Your task to perform on an android device: choose inbox layout in the gmail app Image 0: 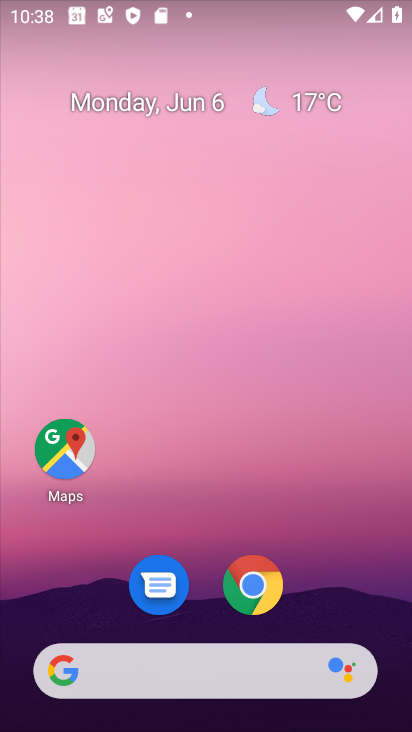
Step 0: drag from (243, 461) to (269, 72)
Your task to perform on an android device: choose inbox layout in the gmail app Image 1: 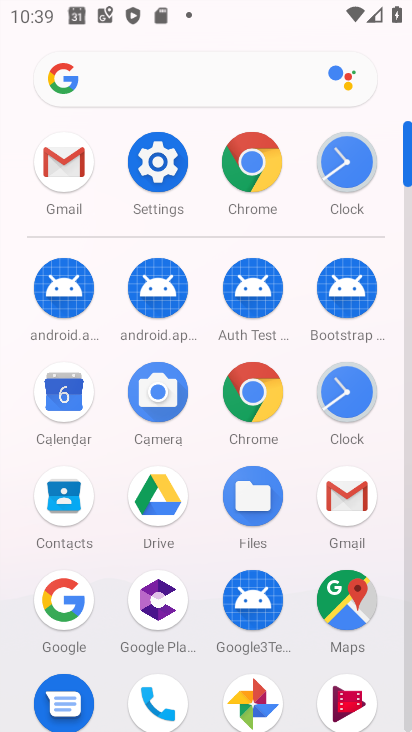
Step 1: click (68, 166)
Your task to perform on an android device: choose inbox layout in the gmail app Image 2: 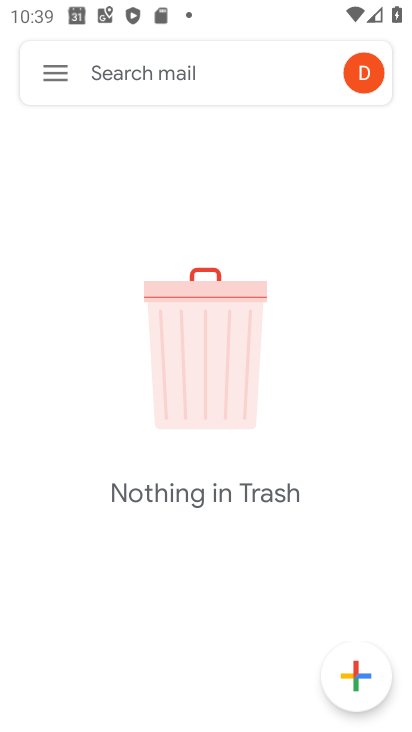
Step 2: click (60, 67)
Your task to perform on an android device: choose inbox layout in the gmail app Image 3: 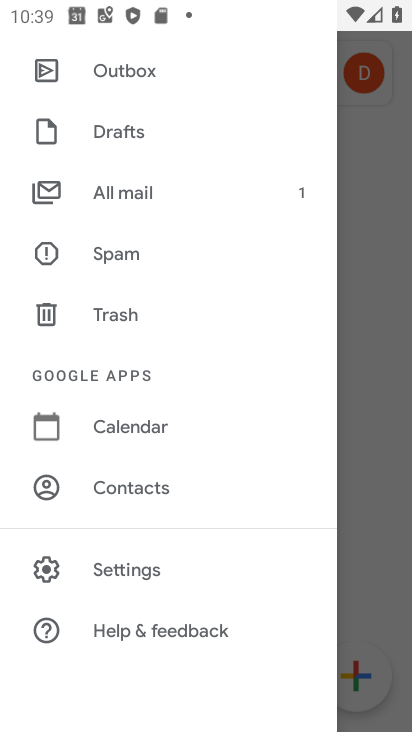
Step 3: click (119, 556)
Your task to perform on an android device: choose inbox layout in the gmail app Image 4: 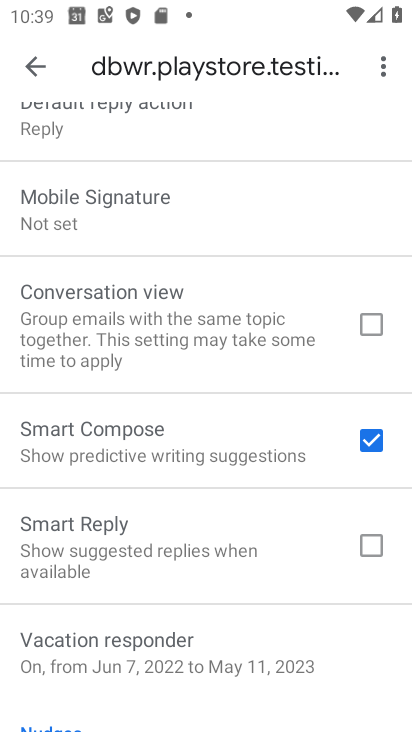
Step 4: drag from (206, 204) to (275, 720)
Your task to perform on an android device: choose inbox layout in the gmail app Image 5: 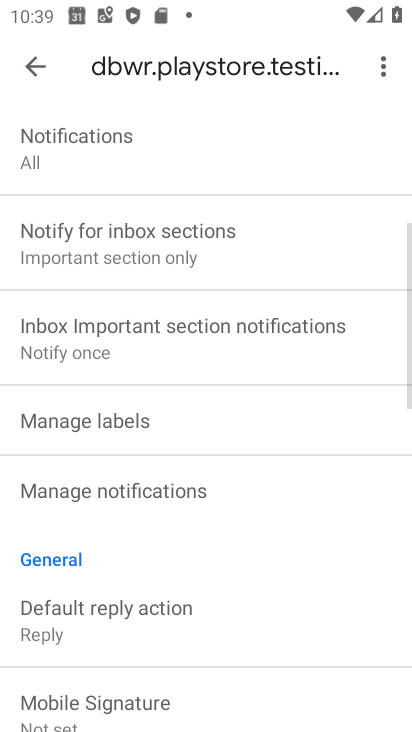
Step 5: drag from (179, 217) to (163, 622)
Your task to perform on an android device: choose inbox layout in the gmail app Image 6: 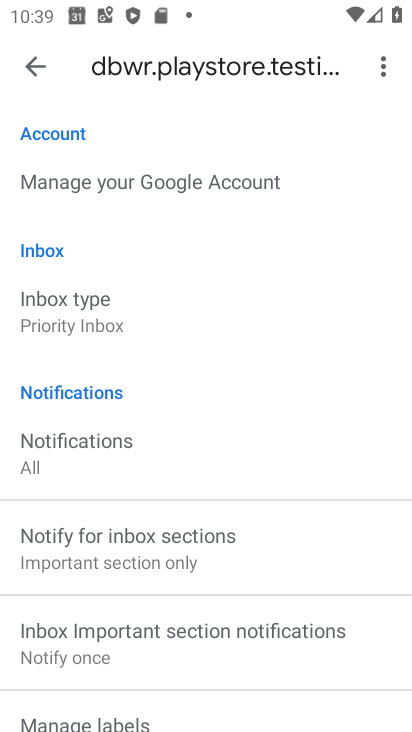
Step 6: click (76, 297)
Your task to perform on an android device: choose inbox layout in the gmail app Image 7: 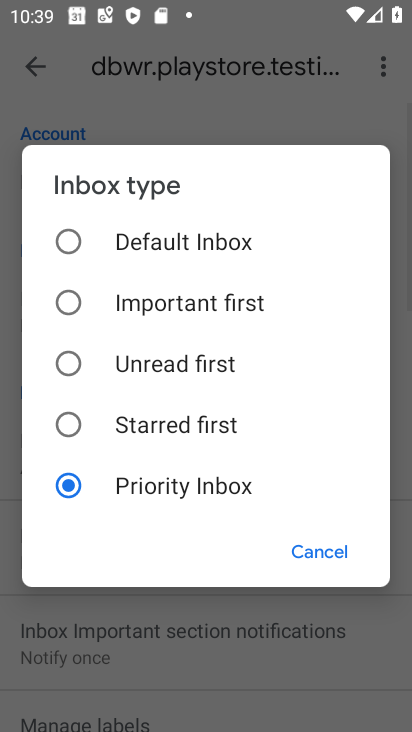
Step 7: click (74, 294)
Your task to perform on an android device: choose inbox layout in the gmail app Image 8: 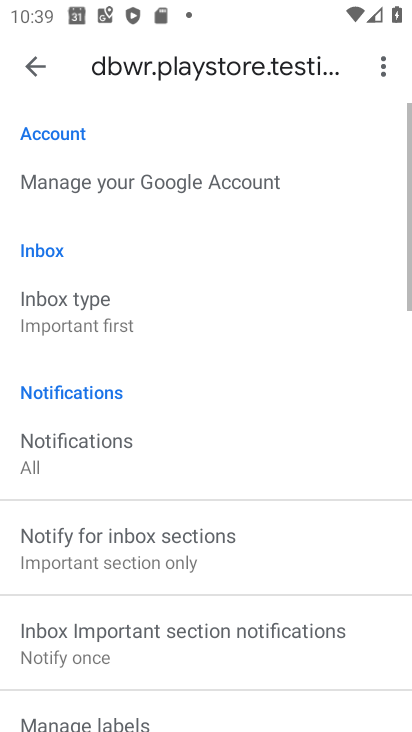
Step 8: task complete